Your task to perform on an android device: toggle javascript in the chrome app Image 0: 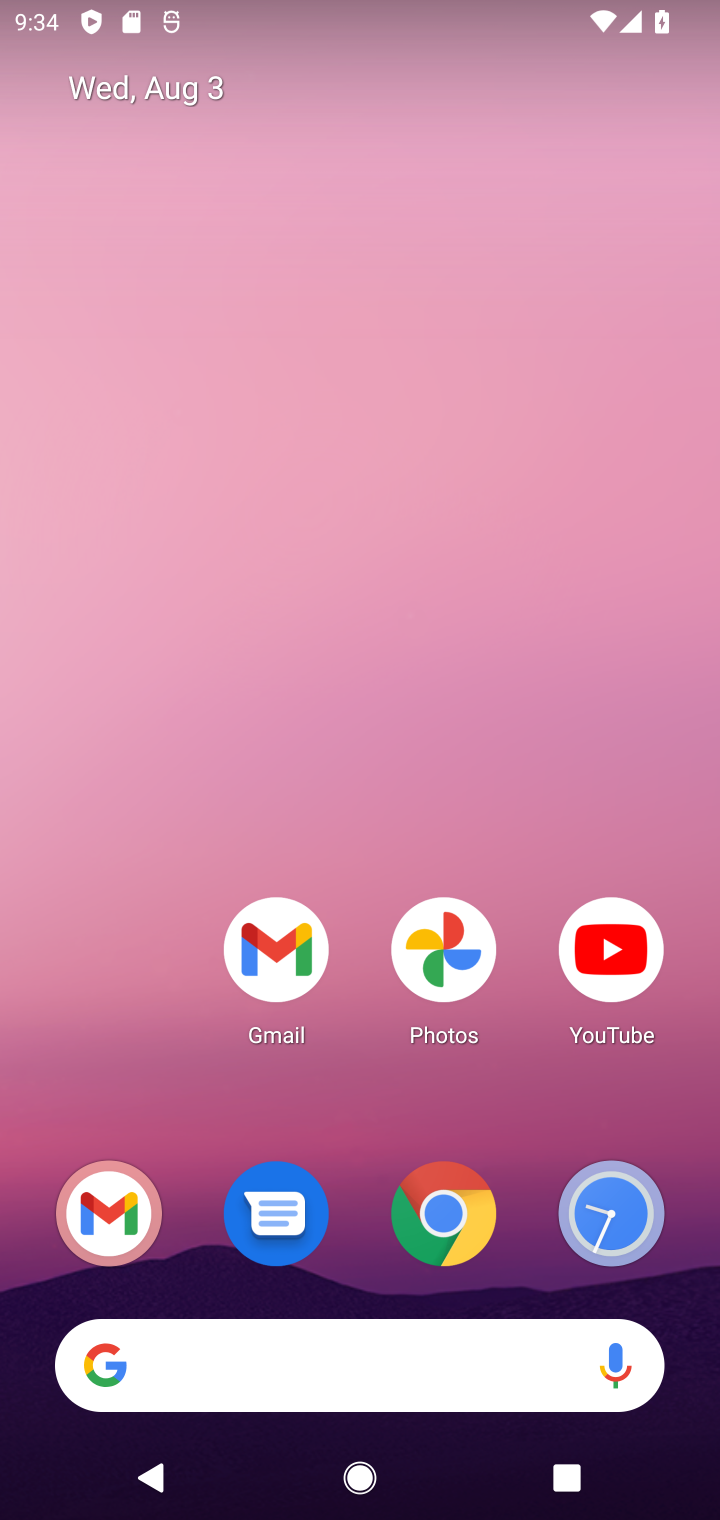
Step 0: click (445, 1201)
Your task to perform on an android device: toggle javascript in the chrome app Image 1: 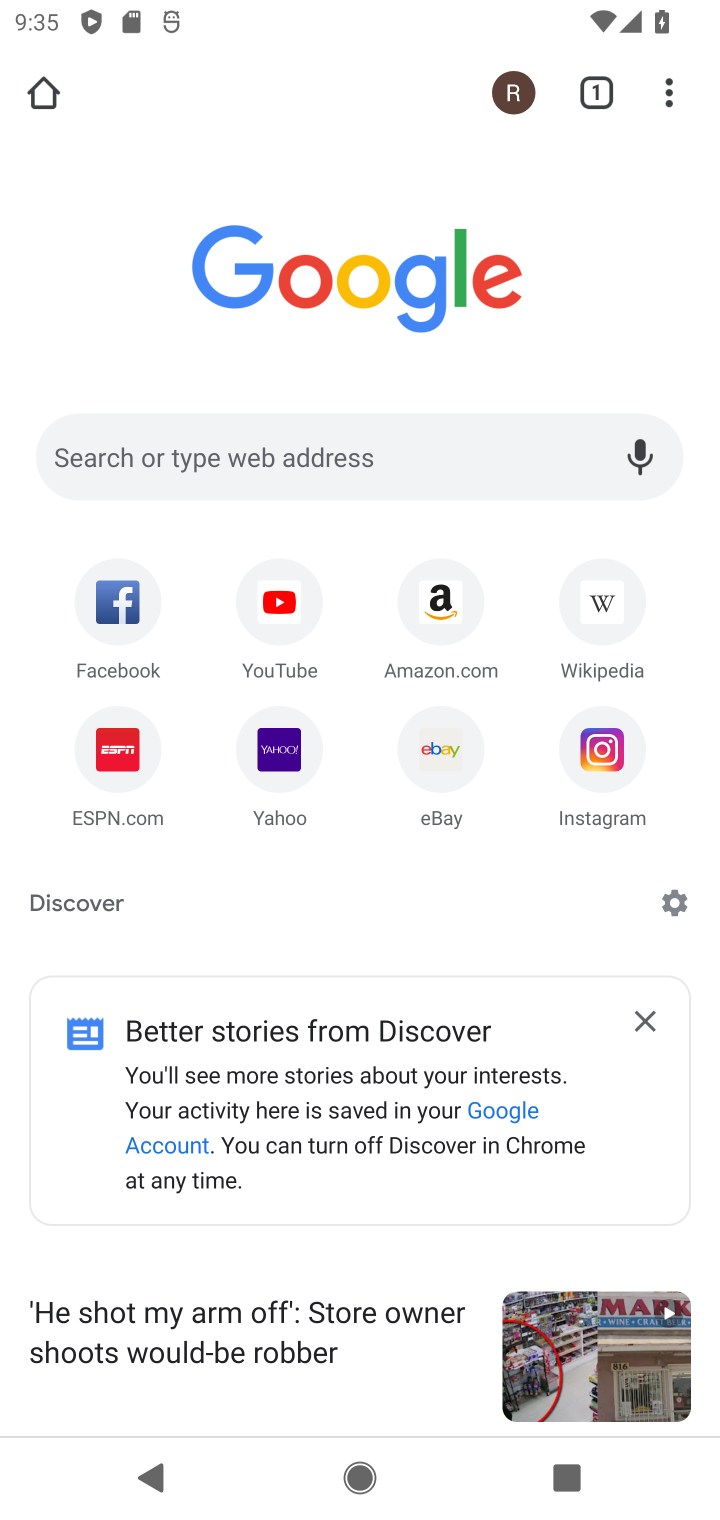
Step 1: click (661, 107)
Your task to perform on an android device: toggle javascript in the chrome app Image 2: 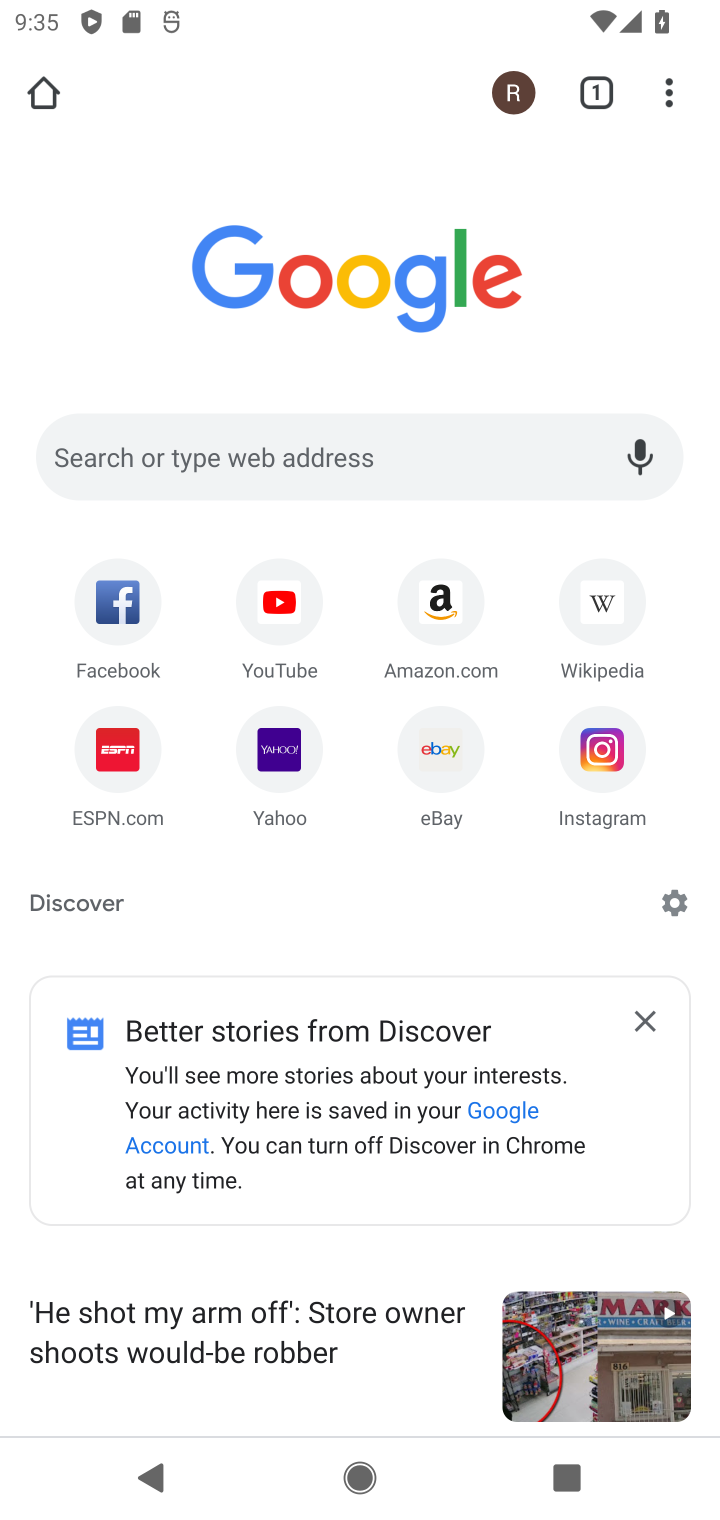
Step 2: click (663, 85)
Your task to perform on an android device: toggle javascript in the chrome app Image 3: 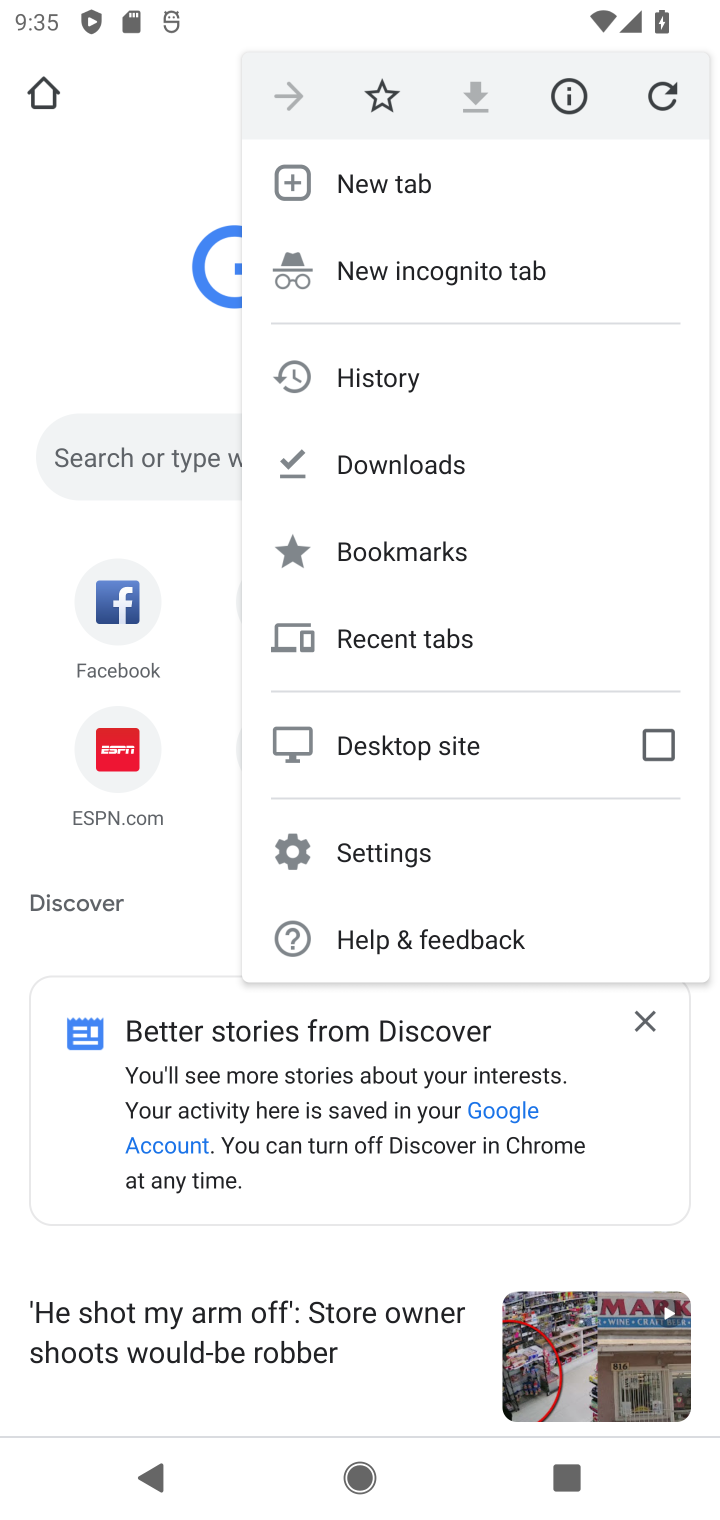
Step 3: click (406, 834)
Your task to perform on an android device: toggle javascript in the chrome app Image 4: 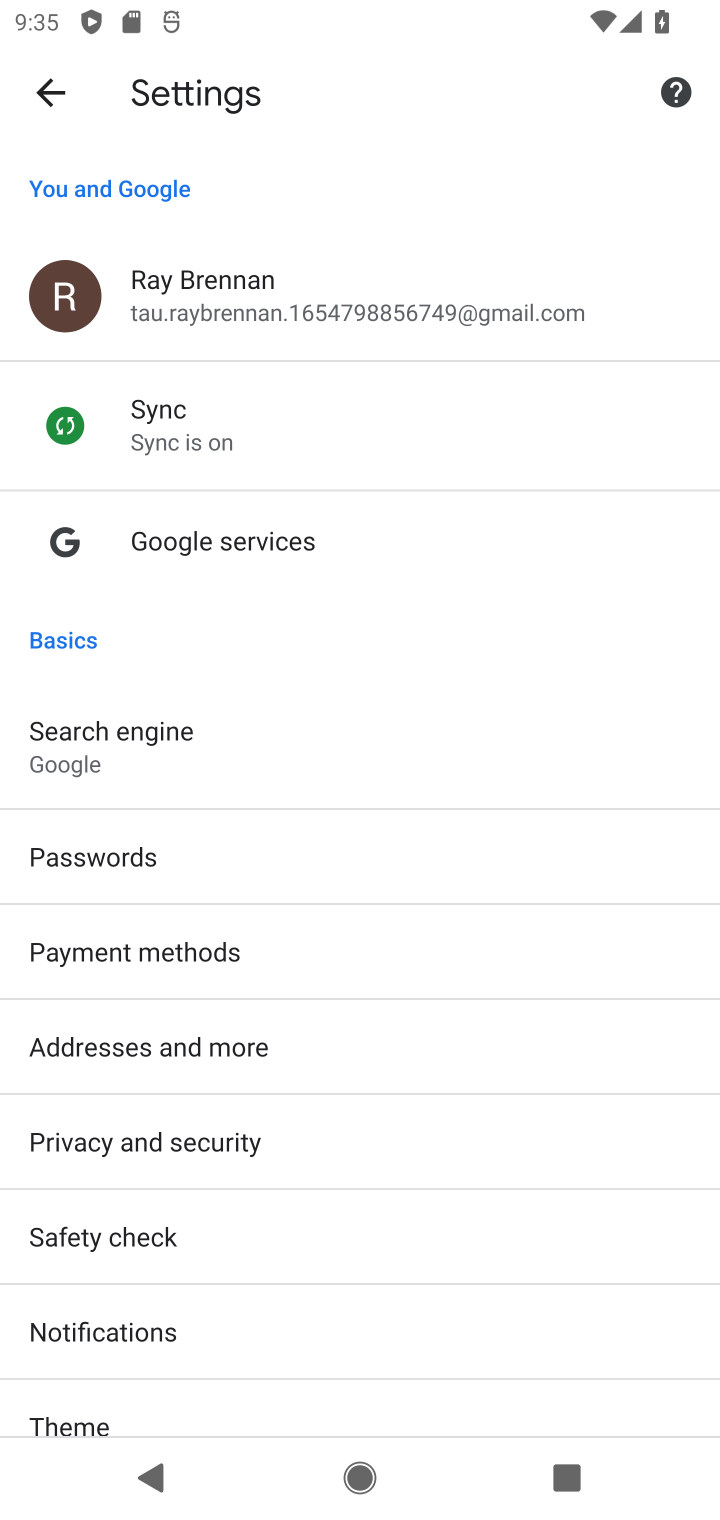
Step 4: drag from (149, 1218) to (101, 601)
Your task to perform on an android device: toggle javascript in the chrome app Image 5: 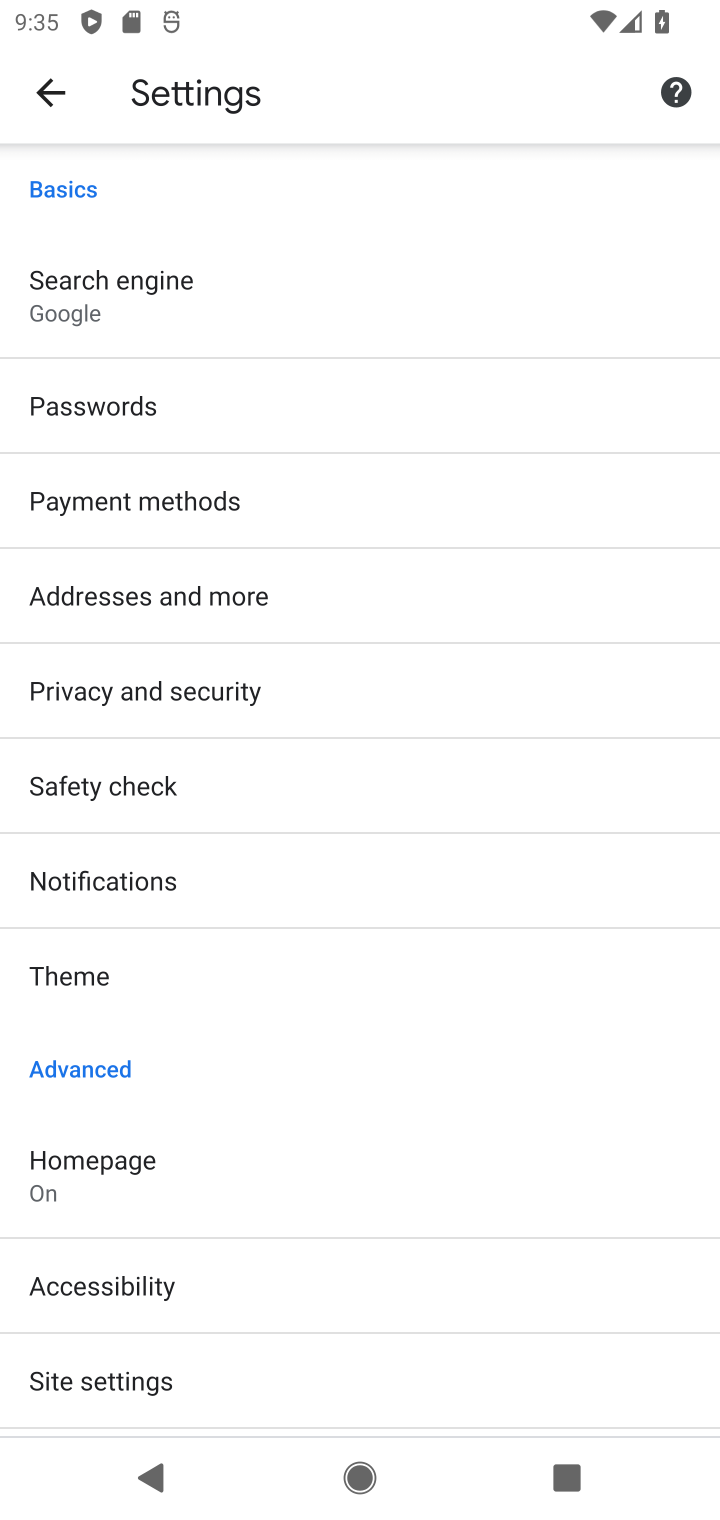
Step 5: click (336, 1371)
Your task to perform on an android device: toggle javascript in the chrome app Image 6: 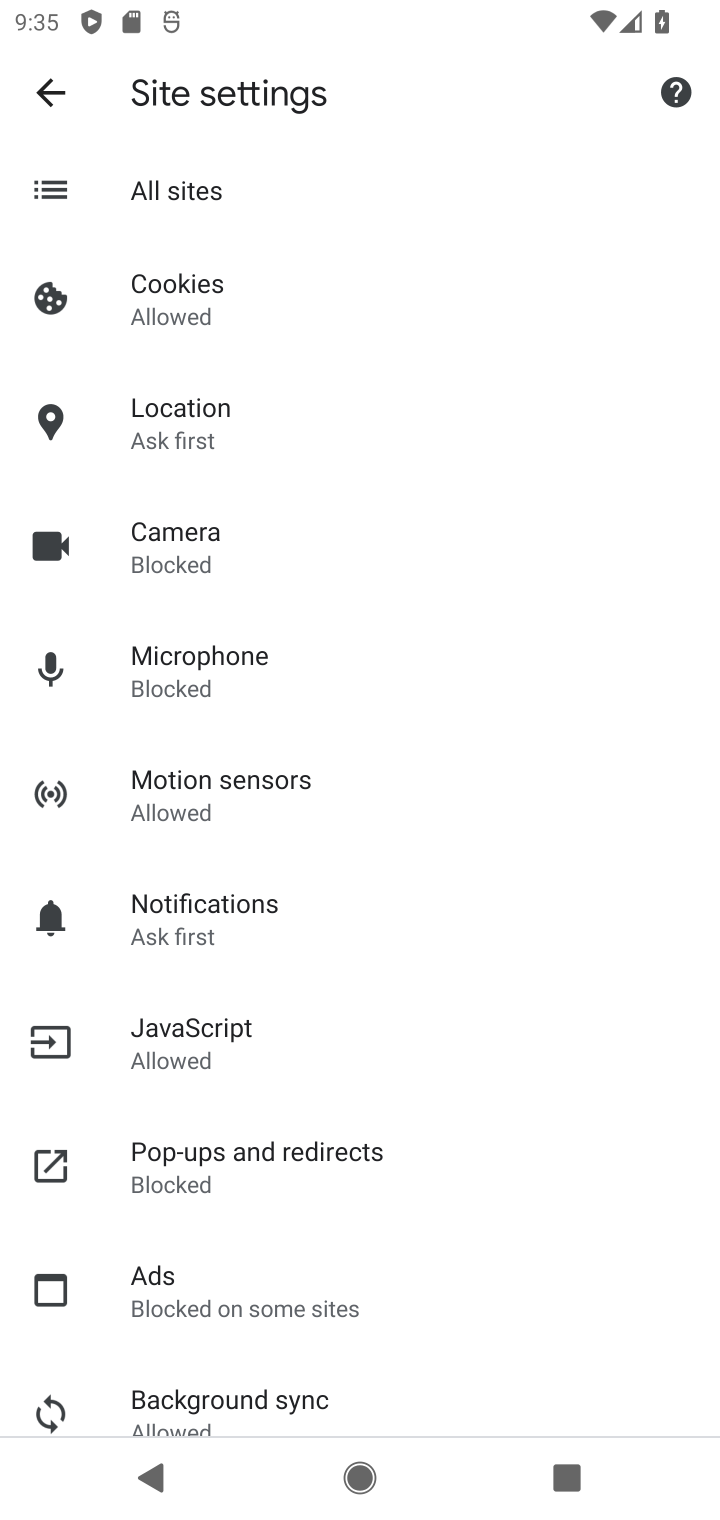
Step 6: click (250, 1028)
Your task to perform on an android device: toggle javascript in the chrome app Image 7: 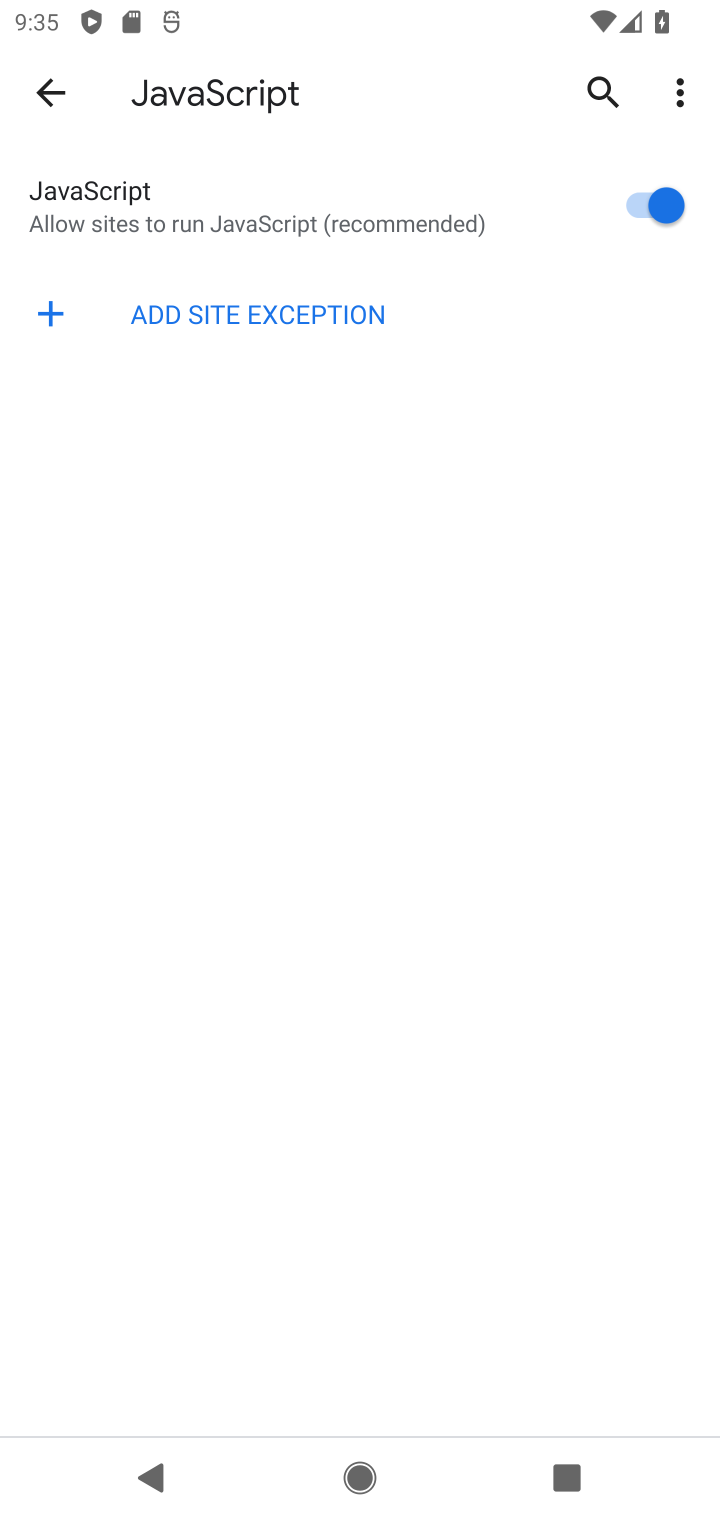
Step 7: click (646, 201)
Your task to perform on an android device: toggle javascript in the chrome app Image 8: 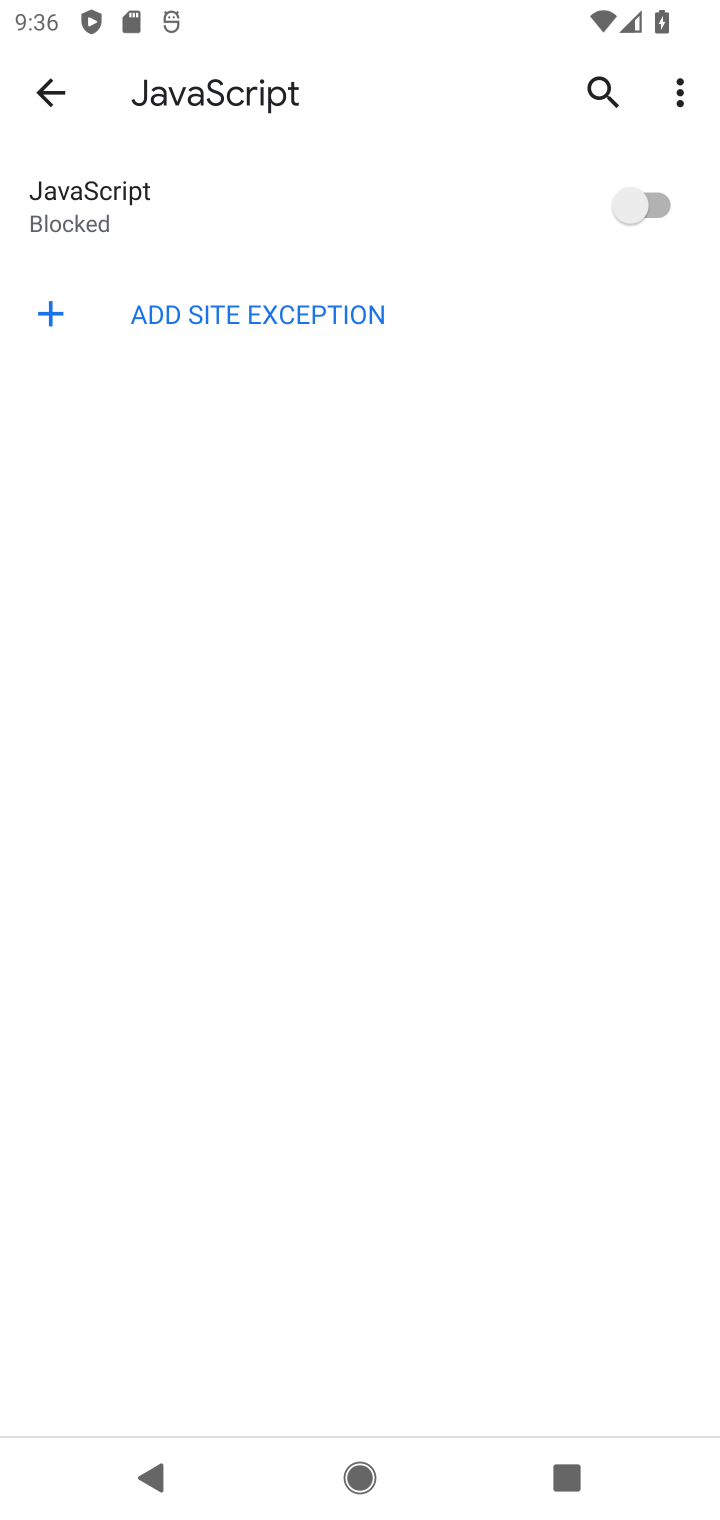
Step 8: task complete